Your task to perform on an android device: all mails in gmail Image 0: 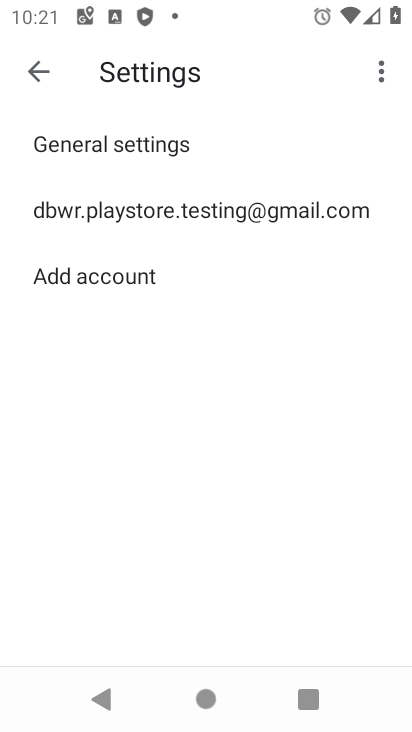
Step 0: click (34, 72)
Your task to perform on an android device: all mails in gmail Image 1: 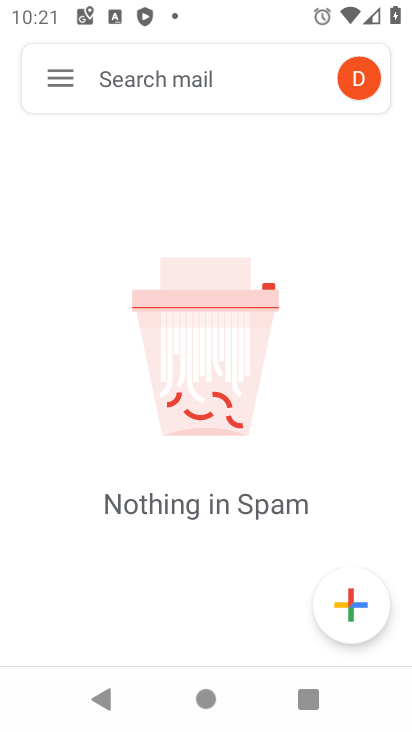
Step 1: press home button
Your task to perform on an android device: all mails in gmail Image 2: 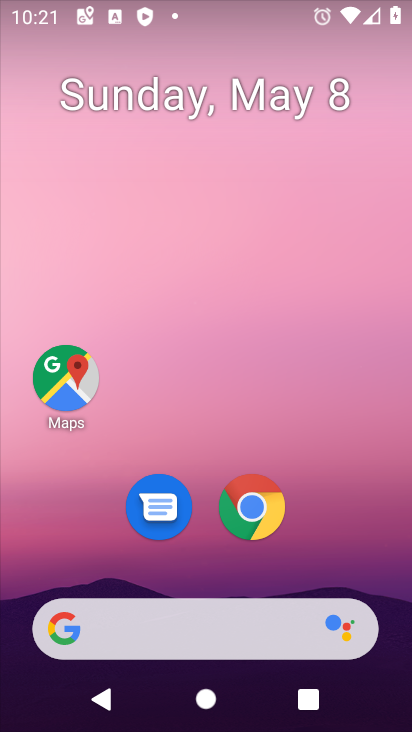
Step 2: drag from (264, 701) to (285, 13)
Your task to perform on an android device: all mails in gmail Image 3: 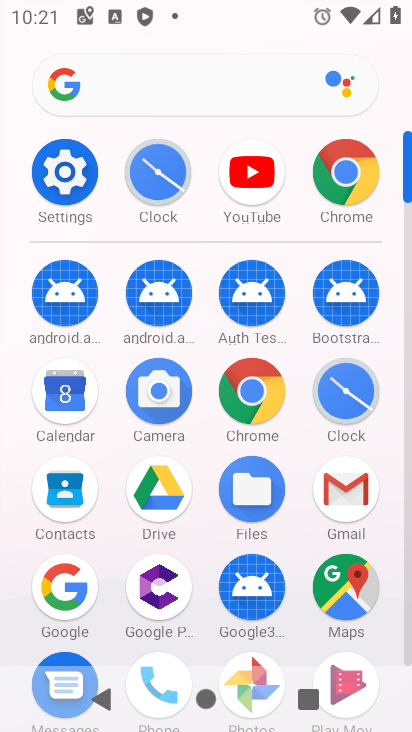
Step 3: click (330, 543)
Your task to perform on an android device: all mails in gmail Image 4: 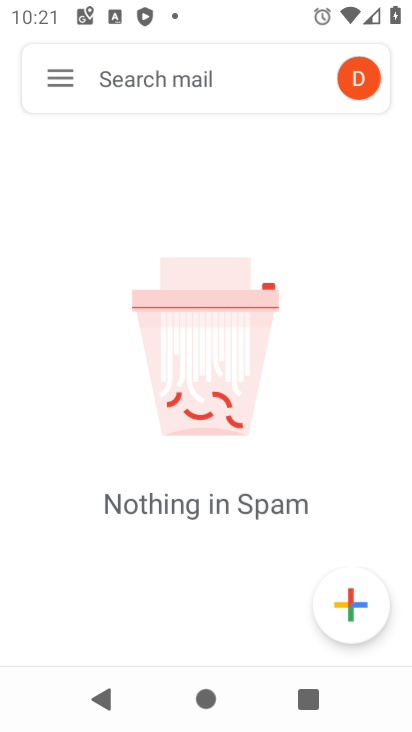
Step 4: click (336, 512)
Your task to perform on an android device: all mails in gmail Image 5: 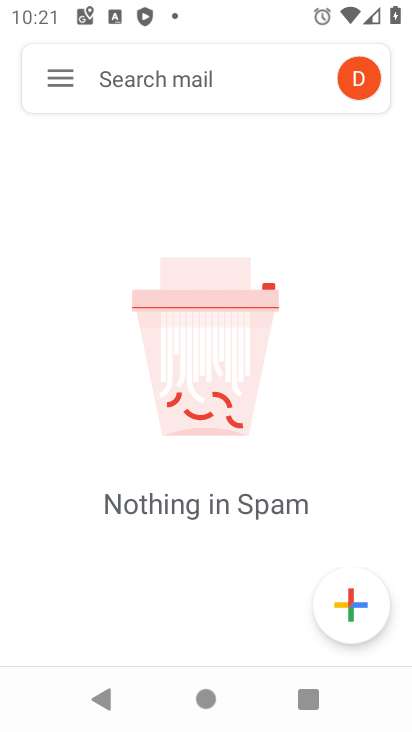
Step 5: click (35, 69)
Your task to perform on an android device: all mails in gmail Image 6: 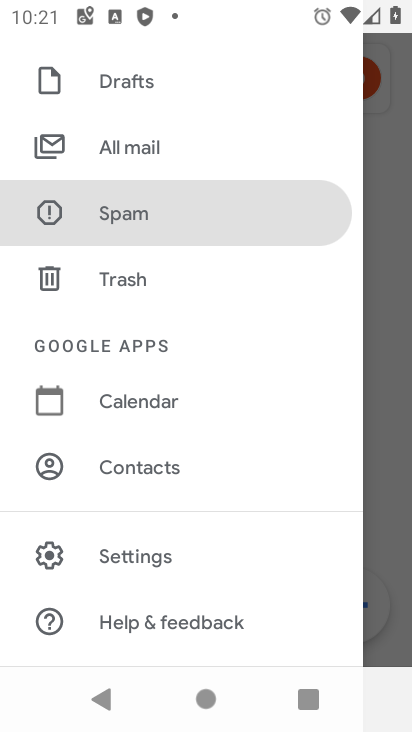
Step 6: click (163, 154)
Your task to perform on an android device: all mails in gmail Image 7: 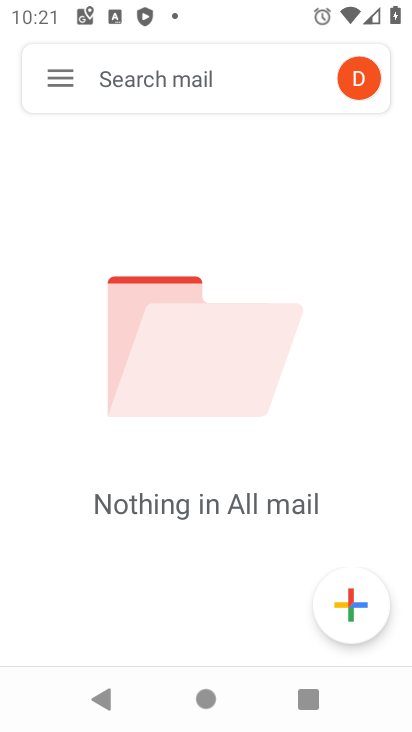
Step 7: task complete